Your task to perform on an android device: turn off wifi Image 0: 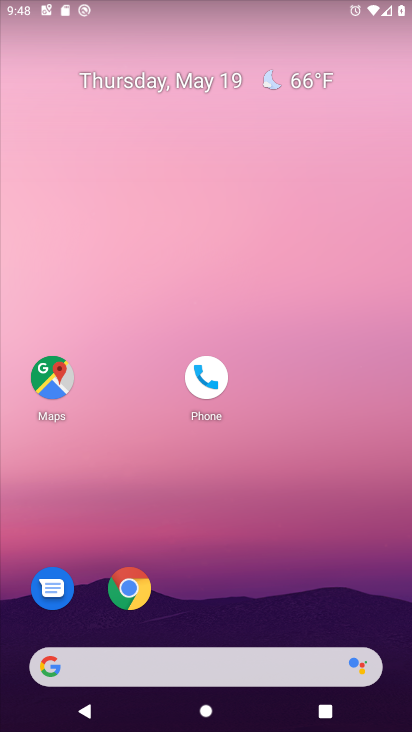
Step 0: drag from (384, 604) to (341, 219)
Your task to perform on an android device: turn off wifi Image 1: 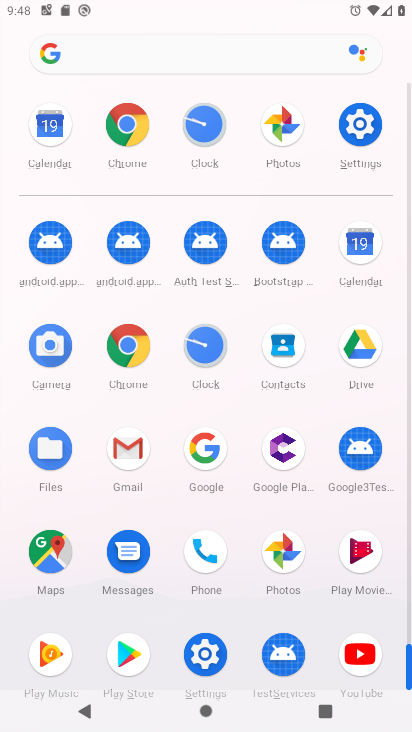
Step 1: click (214, 655)
Your task to perform on an android device: turn off wifi Image 2: 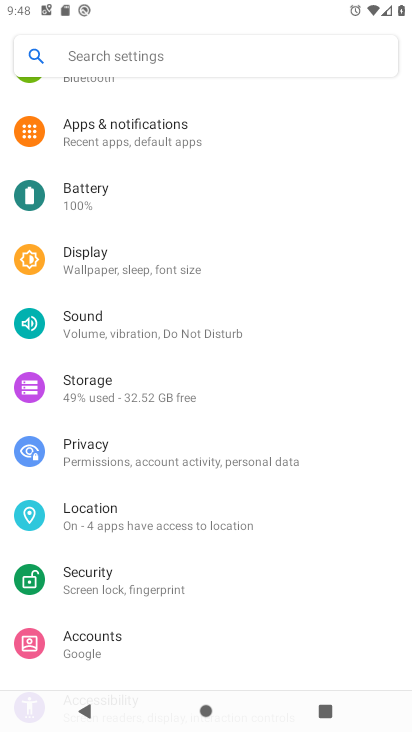
Step 2: drag from (327, 584) to (324, 368)
Your task to perform on an android device: turn off wifi Image 3: 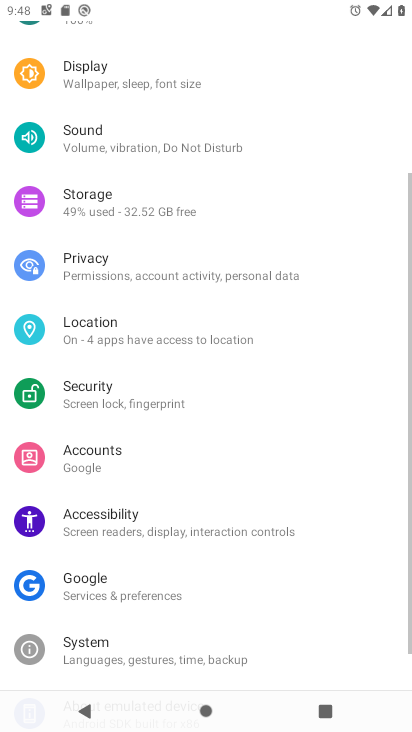
Step 3: drag from (339, 627) to (332, 456)
Your task to perform on an android device: turn off wifi Image 4: 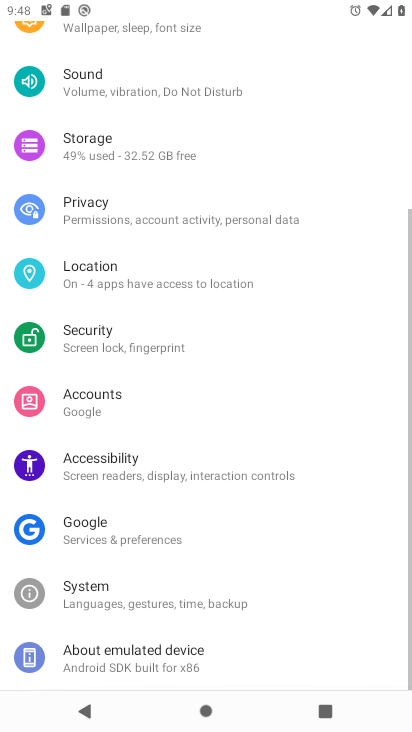
Step 4: drag from (327, 361) to (305, 533)
Your task to perform on an android device: turn off wifi Image 5: 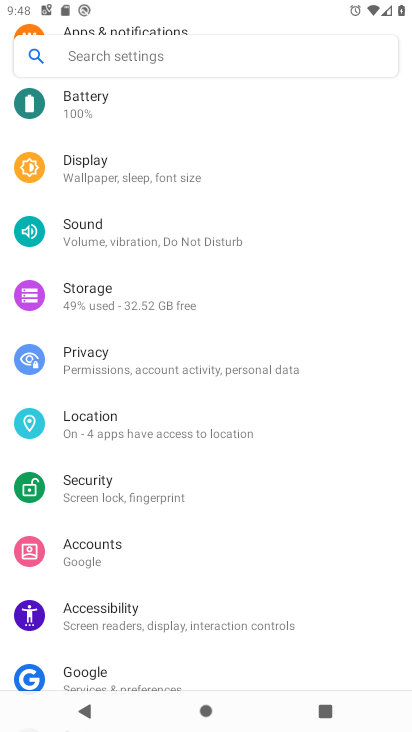
Step 5: drag from (329, 384) to (327, 492)
Your task to perform on an android device: turn off wifi Image 6: 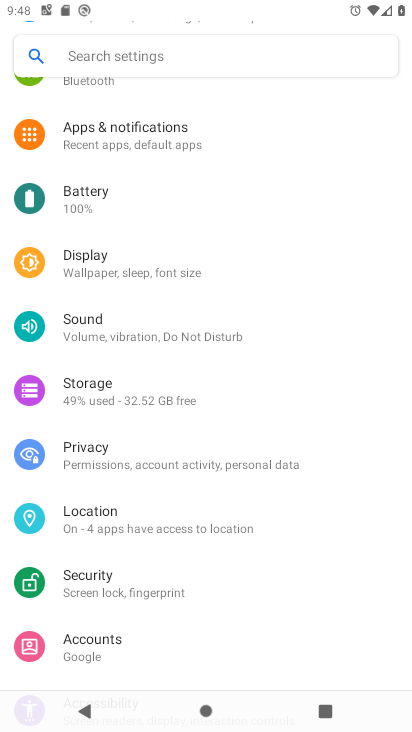
Step 6: drag from (329, 340) to (329, 473)
Your task to perform on an android device: turn off wifi Image 7: 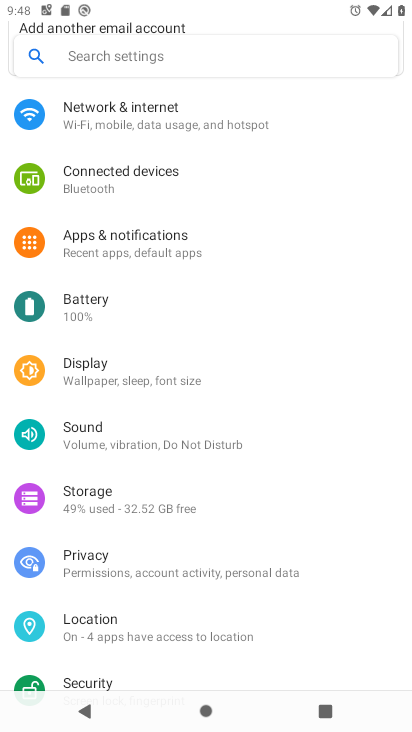
Step 7: drag from (342, 281) to (348, 378)
Your task to perform on an android device: turn off wifi Image 8: 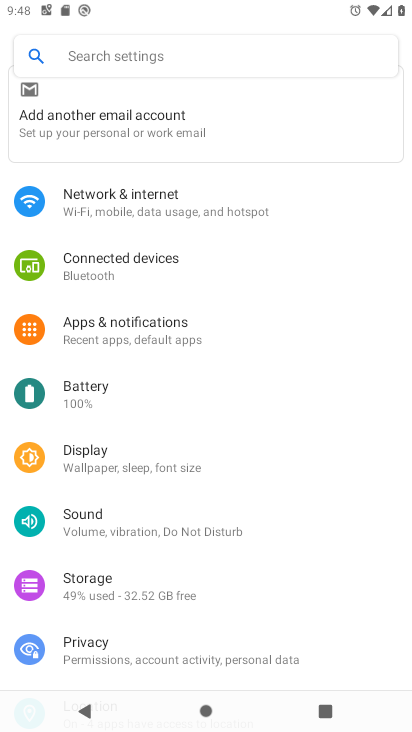
Step 8: drag from (358, 249) to (348, 416)
Your task to perform on an android device: turn off wifi Image 9: 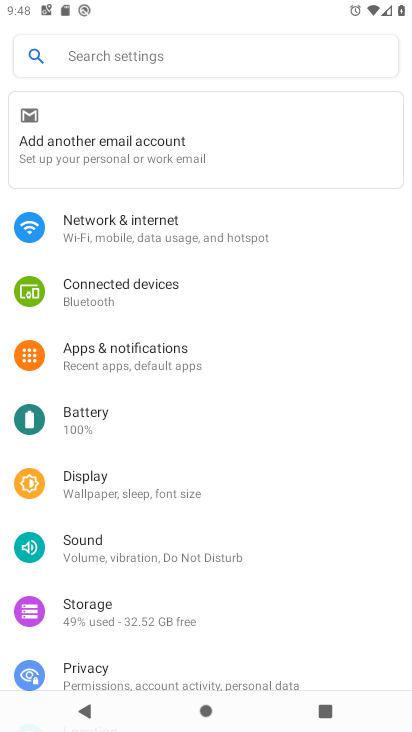
Step 9: click (244, 228)
Your task to perform on an android device: turn off wifi Image 10: 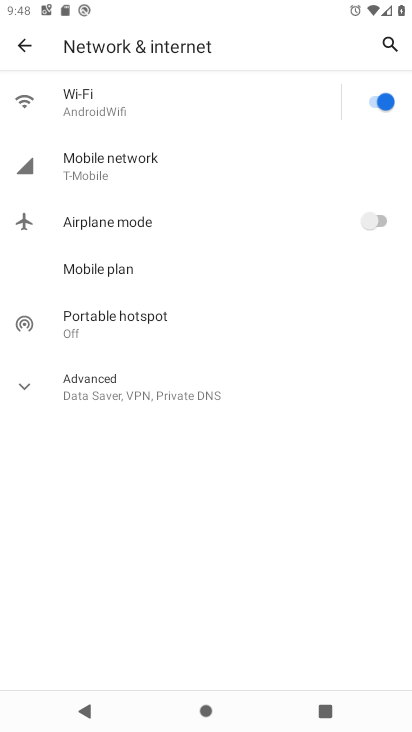
Step 10: click (370, 109)
Your task to perform on an android device: turn off wifi Image 11: 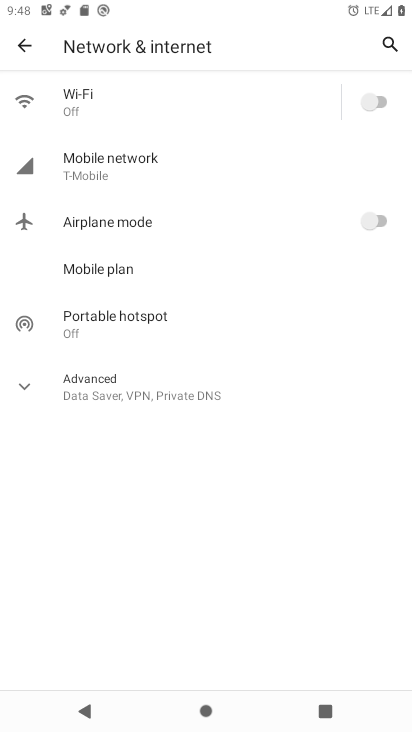
Step 11: task complete